Your task to perform on an android device: Toggle the flashlight Image 0: 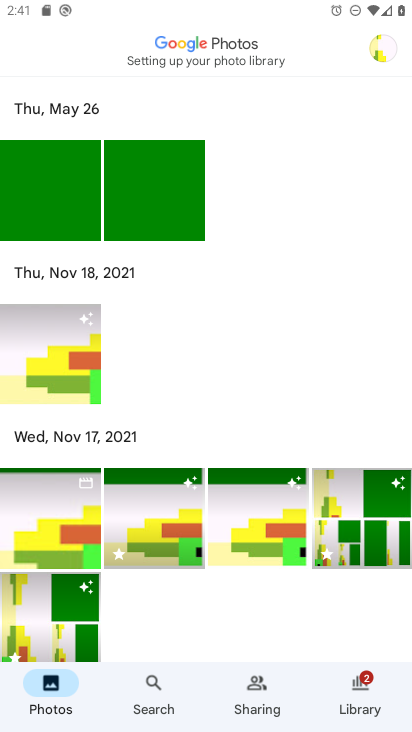
Step 0: press home button
Your task to perform on an android device: Toggle the flashlight Image 1: 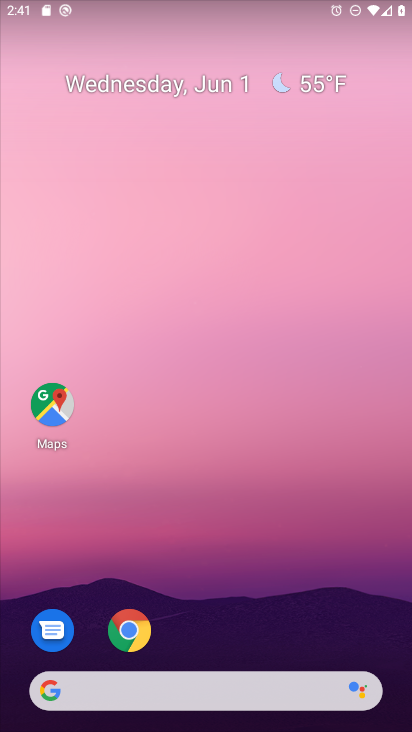
Step 1: task complete